Your task to perform on an android device: Open Reddit.com Image 0: 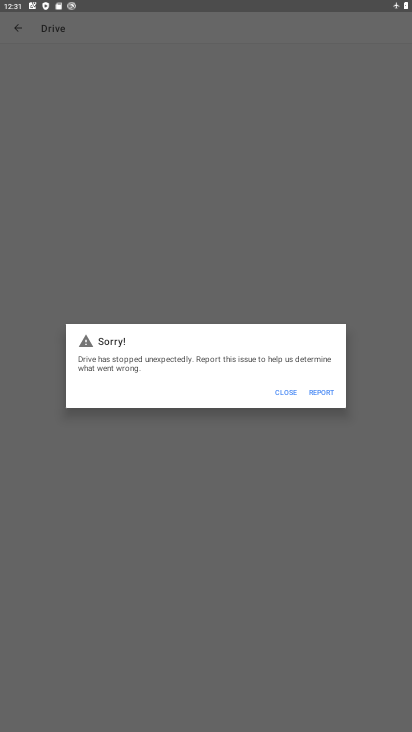
Step 0: press home button
Your task to perform on an android device: Open Reddit.com Image 1: 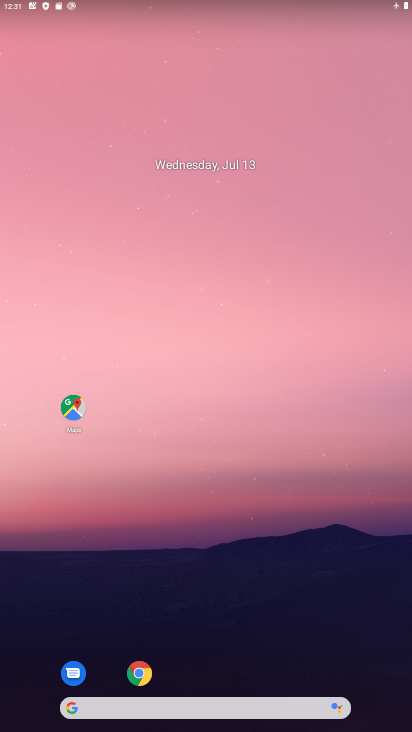
Step 1: drag from (216, 679) to (239, 175)
Your task to perform on an android device: Open Reddit.com Image 2: 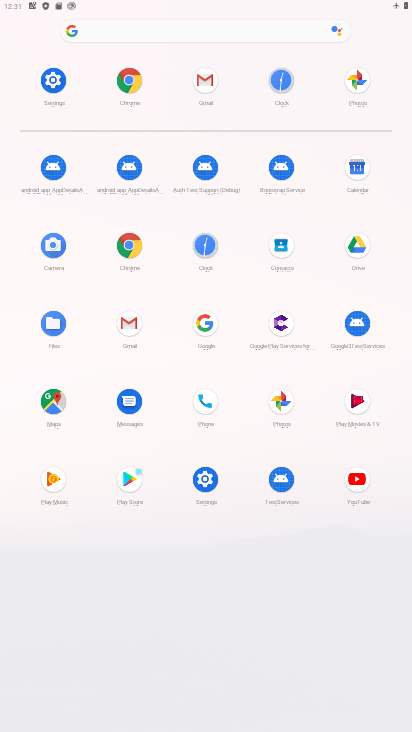
Step 2: click (46, 88)
Your task to perform on an android device: Open Reddit.com Image 3: 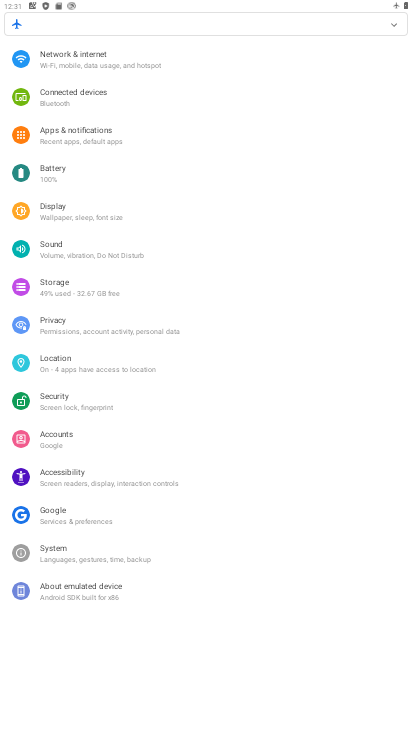
Step 3: click (220, 65)
Your task to perform on an android device: Open Reddit.com Image 4: 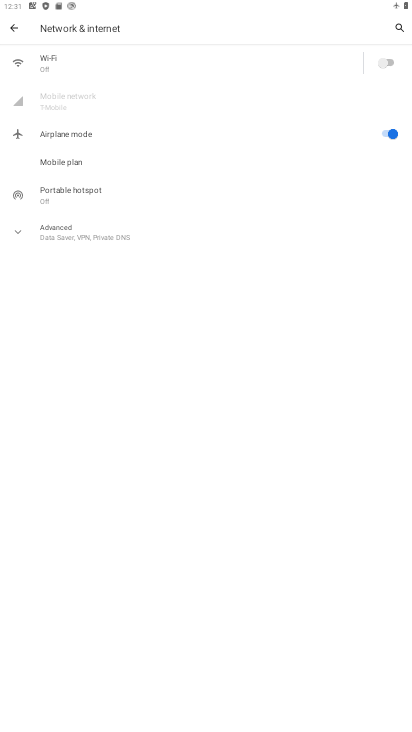
Step 4: click (389, 74)
Your task to perform on an android device: Open Reddit.com Image 5: 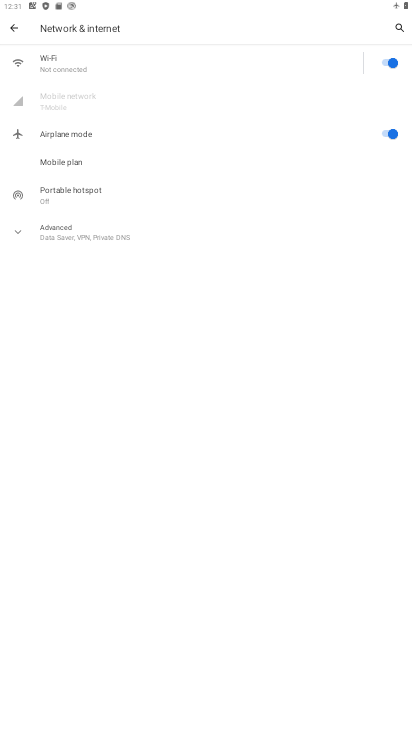
Step 5: press home button
Your task to perform on an android device: Open Reddit.com Image 6: 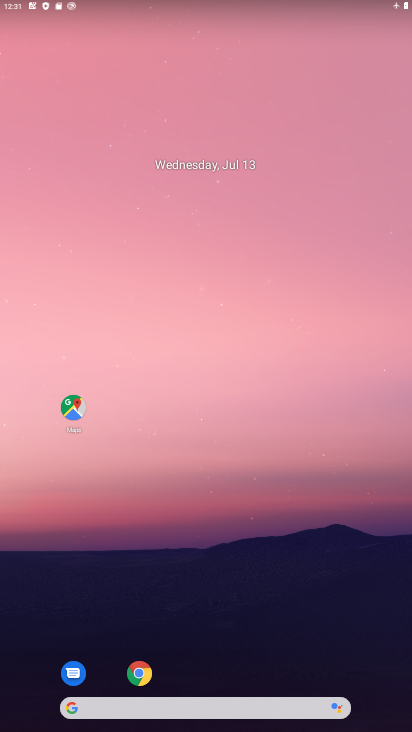
Step 6: drag from (235, 684) to (223, 180)
Your task to perform on an android device: Open Reddit.com Image 7: 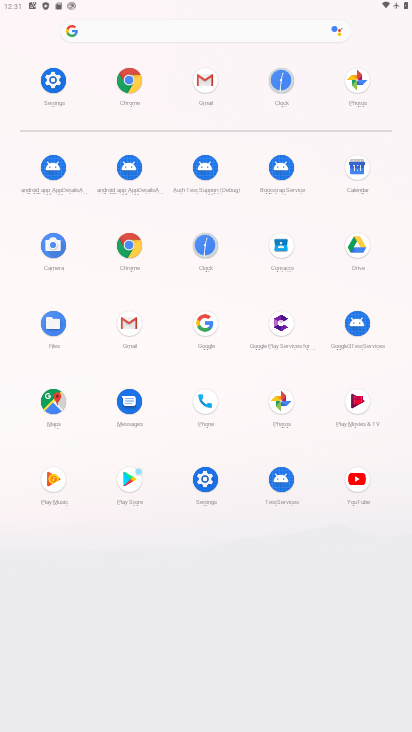
Step 7: click (227, 37)
Your task to perform on an android device: Open Reddit.com Image 8: 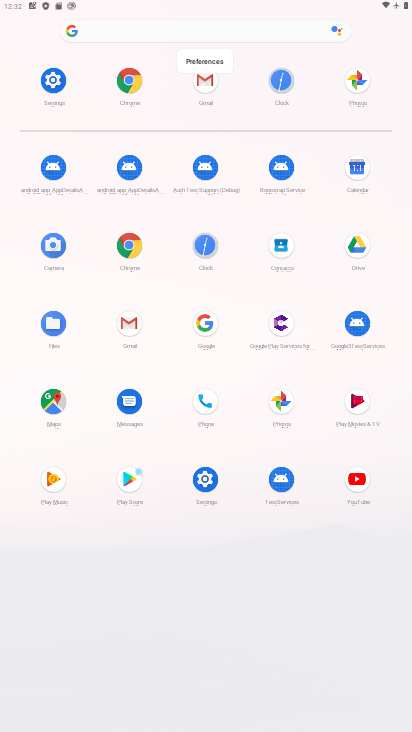
Step 8: type "reddit.com"
Your task to perform on an android device: Open Reddit.com Image 9: 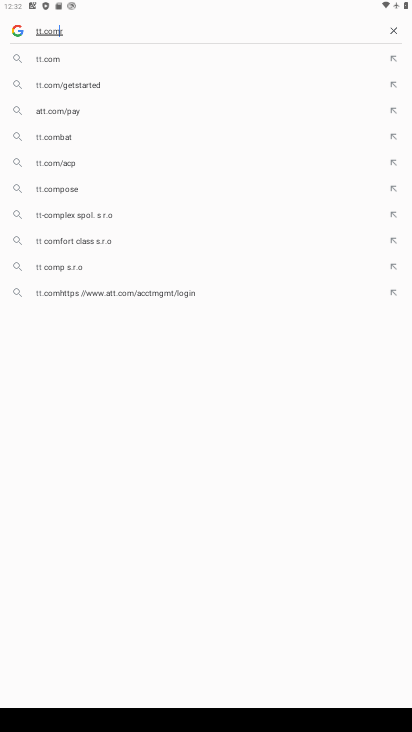
Step 9: click (167, 53)
Your task to perform on an android device: Open Reddit.com Image 10: 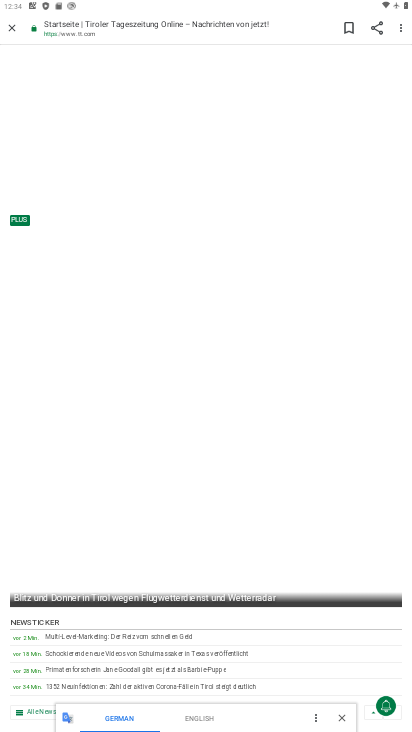
Step 10: task complete